Your task to perform on an android device: turn pop-ups off in chrome Image 0: 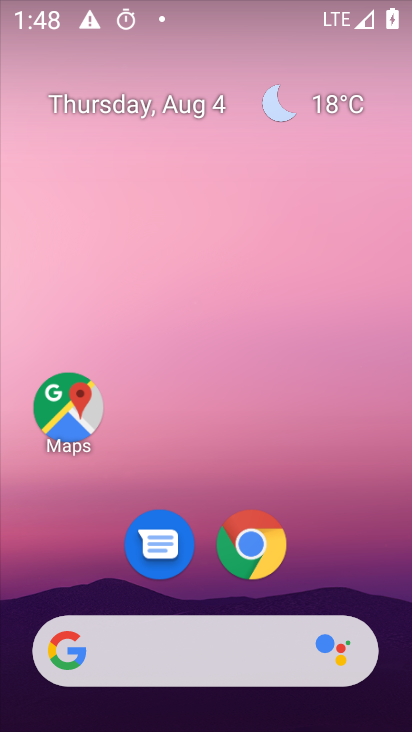
Step 0: click (240, 560)
Your task to perform on an android device: turn pop-ups off in chrome Image 1: 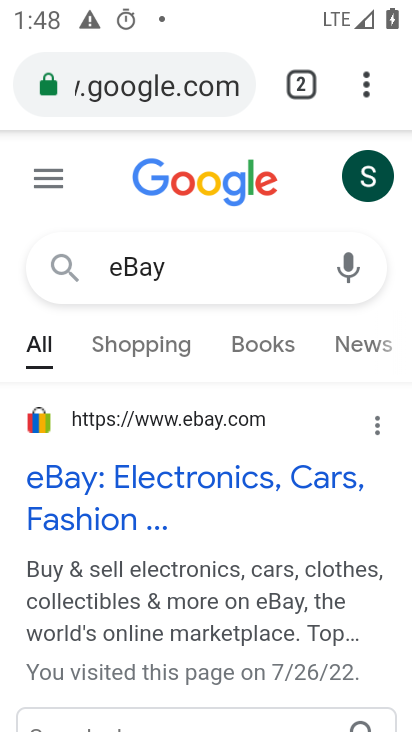
Step 1: click (359, 73)
Your task to perform on an android device: turn pop-ups off in chrome Image 2: 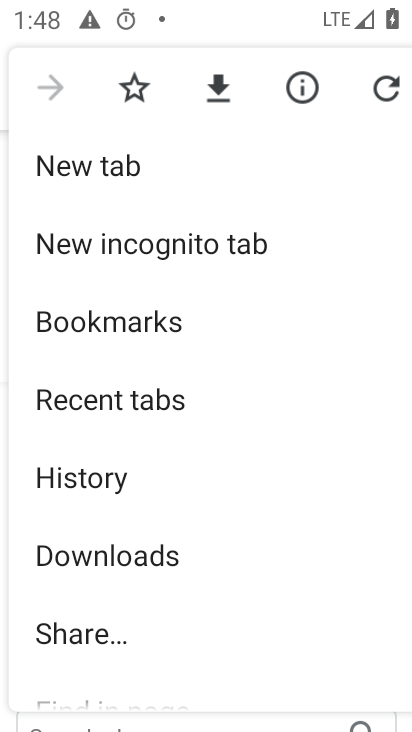
Step 2: drag from (305, 656) to (297, 291)
Your task to perform on an android device: turn pop-ups off in chrome Image 3: 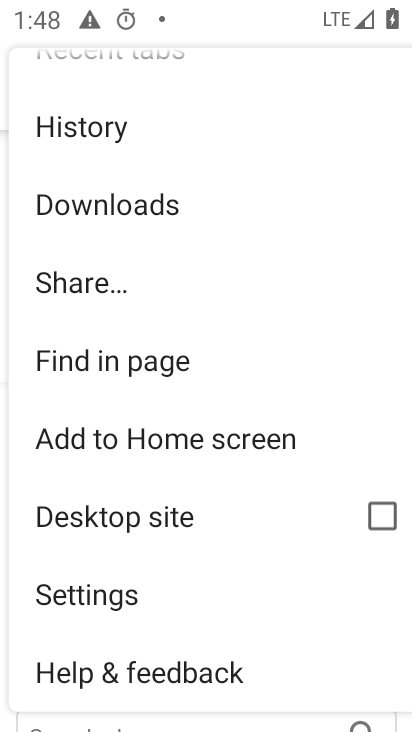
Step 3: click (65, 600)
Your task to perform on an android device: turn pop-ups off in chrome Image 4: 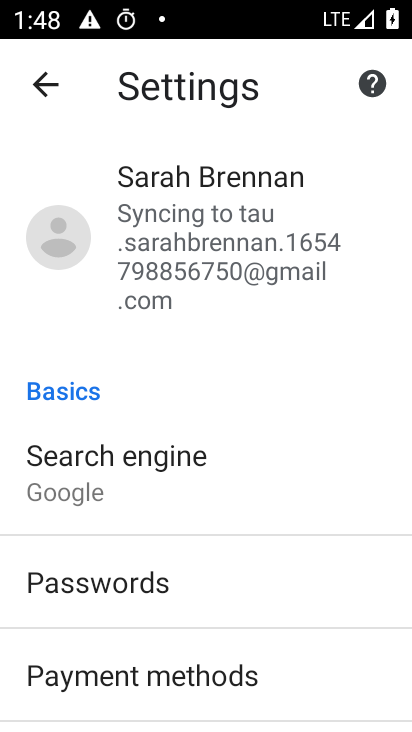
Step 4: drag from (283, 680) to (263, 237)
Your task to perform on an android device: turn pop-ups off in chrome Image 5: 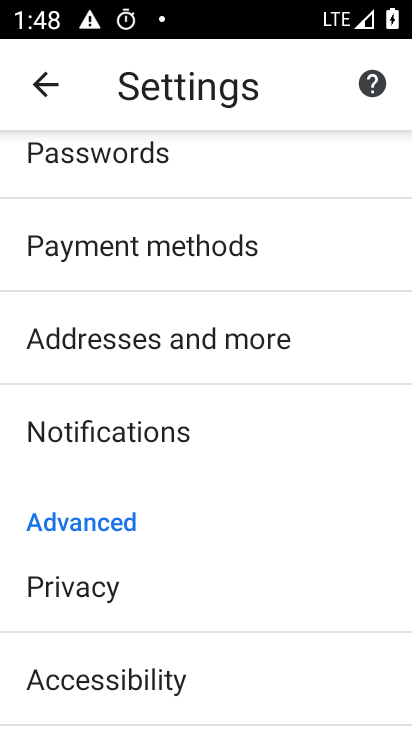
Step 5: drag from (252, 689) to (264, 286)
Your task to perform on an android device: turn pop-ups off in chrome Image 6: 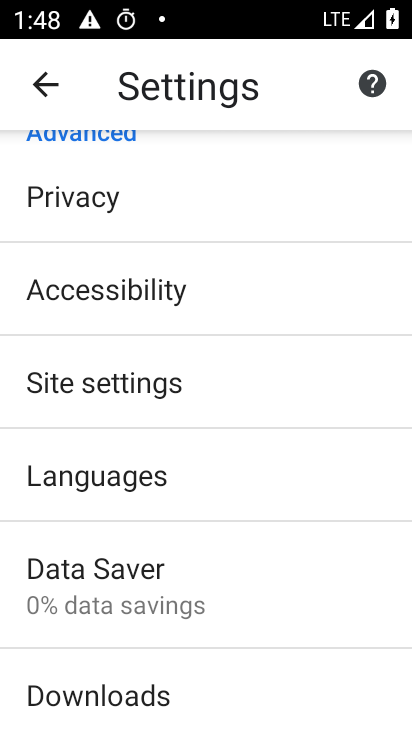
Step 6: click (110, 393)
Your task to perform on an android device: turn pop-ups off in chrome Image 7: 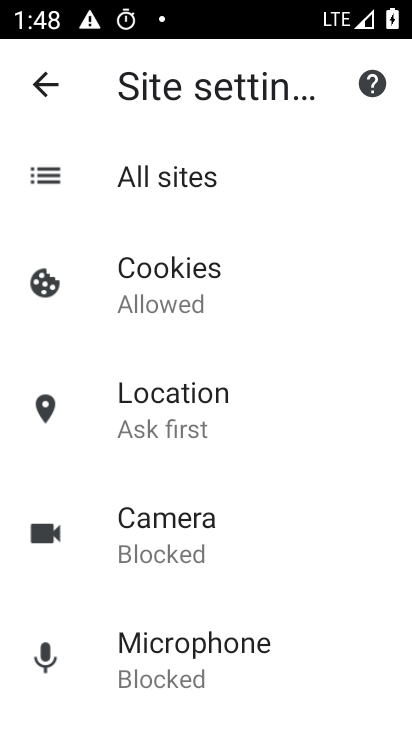
Step 7: drag from (341, 639) to (328, 304)
Your task to perform on an android device: turn pop-ups off in chrome Image 8: 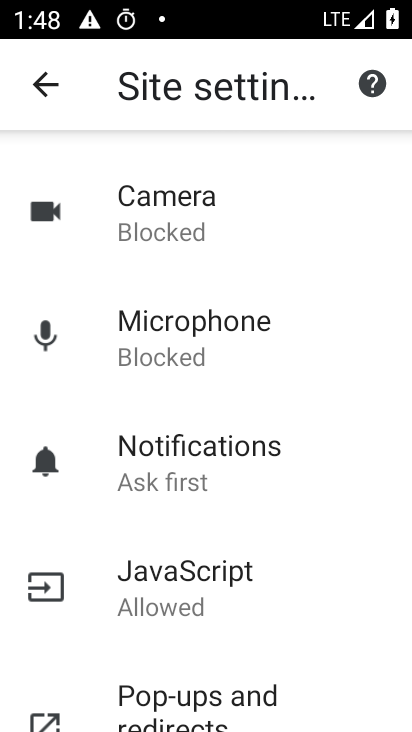
Step 8: click (225, 691)
Your task to perform on an android device: turn pop-ups off in chrome Image 9: 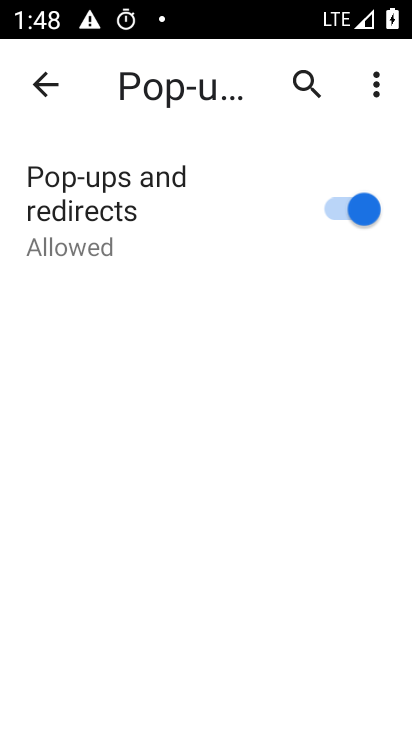
Step 9: click (339, 211)
Your task to perform on an android device: turn pop-ups off in chrome Image 10: 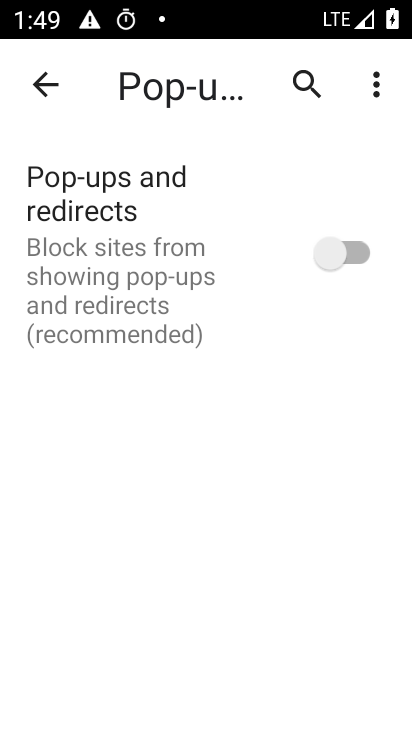
Step 10: task complete